Your task to perform on an android device: open a bookmark in the chrome app Image 0: 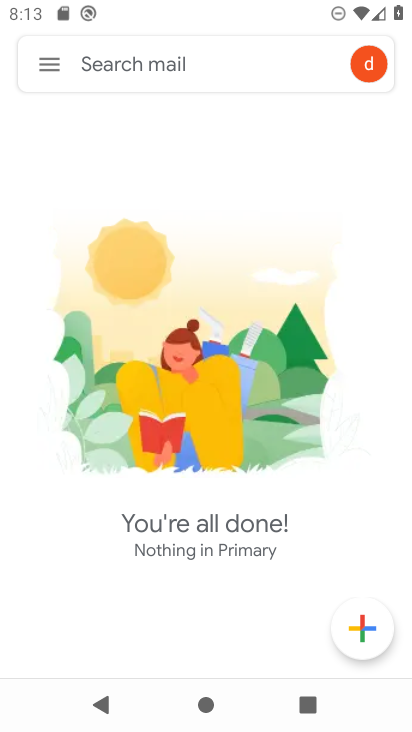
Step 0: click (44, 65)
Your task to perform on an android device: open a bookmark in the chrome app Image 1: 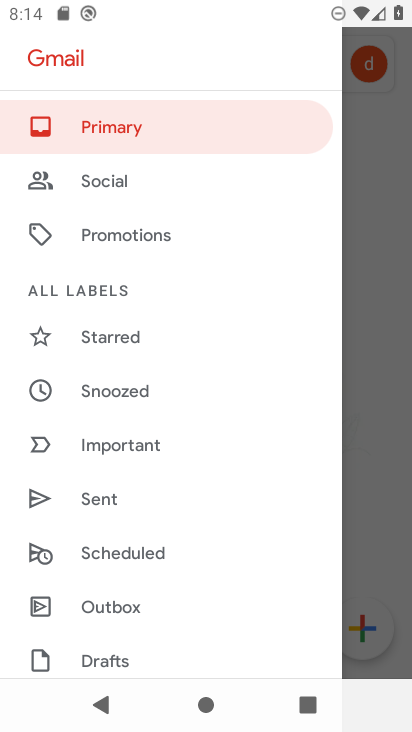
Step 1: press home button
Your task to perform on an android device: open a bookmark in the chrome app Image 2: 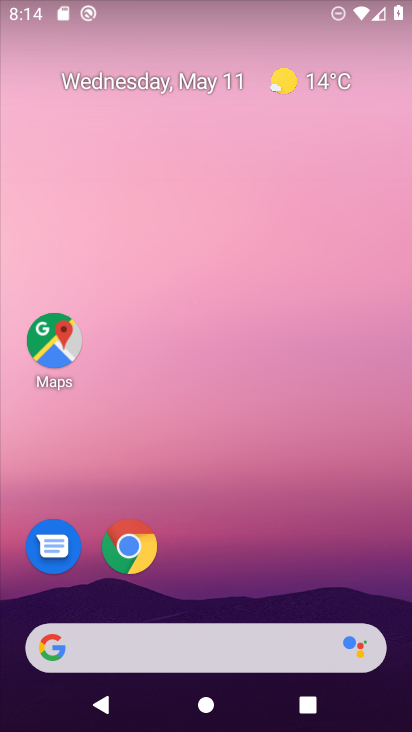
Step 2: click (124, 552)
Your task to perform on an android device: open a bookmark in the chrome app Image 3: 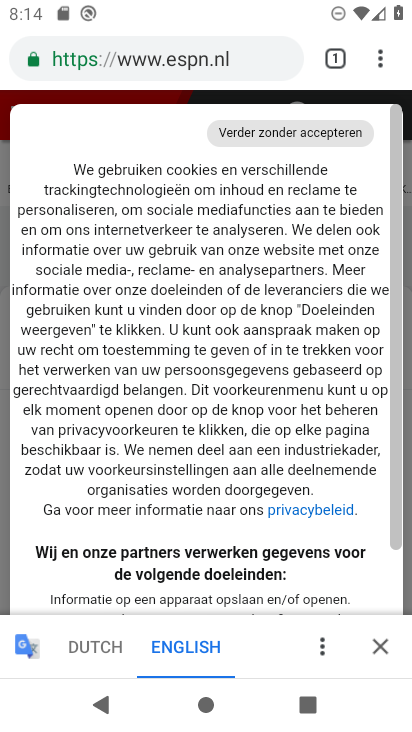
Step 3: drag from (372, 64) to (189, 232)
Your task to perform on an android device: open a bookmark in the chrome app Image 4: 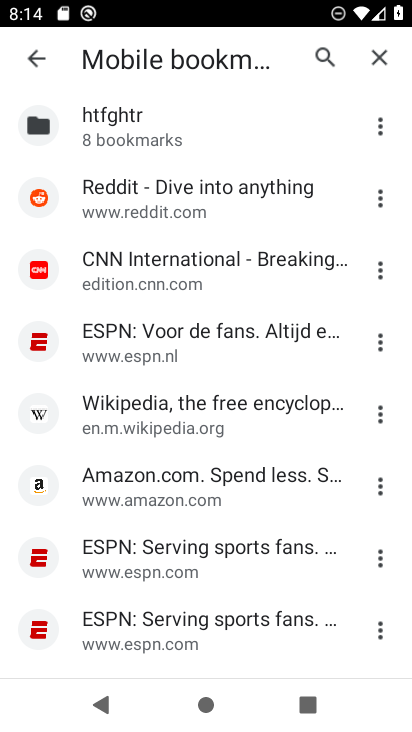
Step 4: click (120, 180)
Your task to perform on an android device: open a bookmark in the chrome app Image 5: 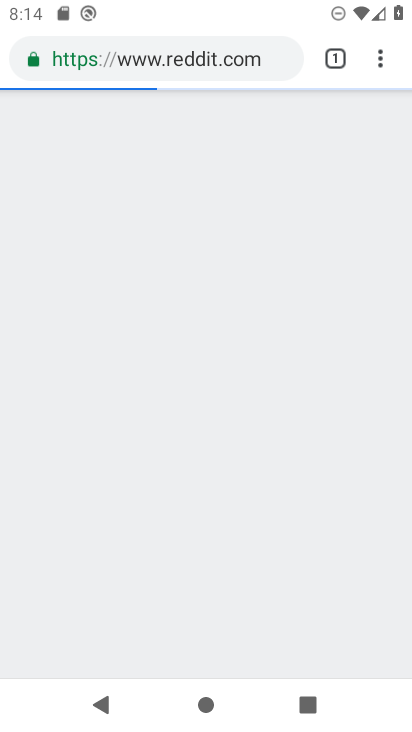
Step 5: task complete